Your task to perform on an android device: change alarm snooze length Image 0: 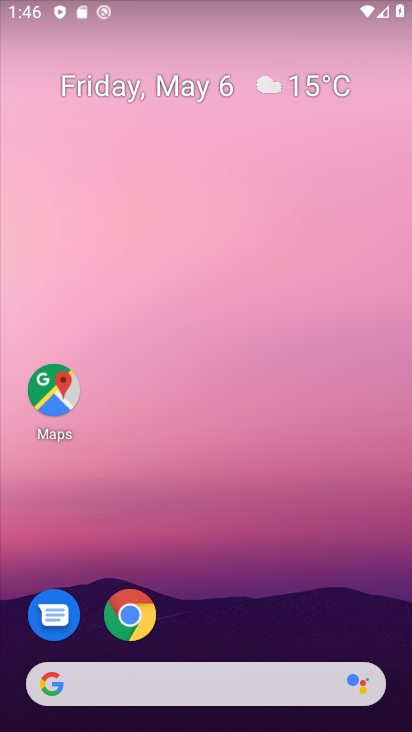
Step 0: drag from (249, 565) to (283, 207)
Your task to perform on an android device: change alarm snooze length Image 1: 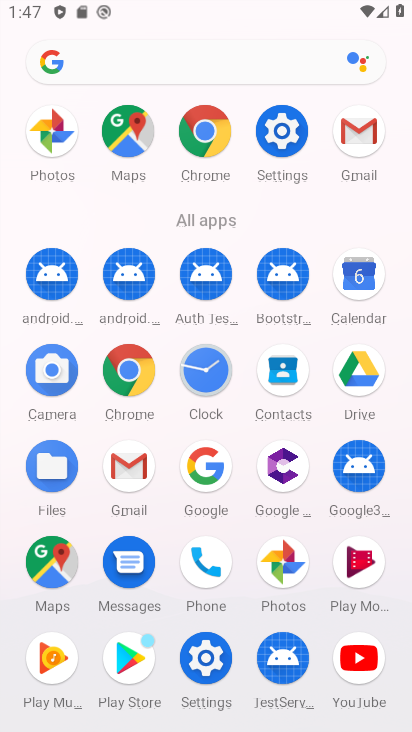
Step 1: click (216, 378)
Your task to perform on an android device: change alarm snooze length Image 2: 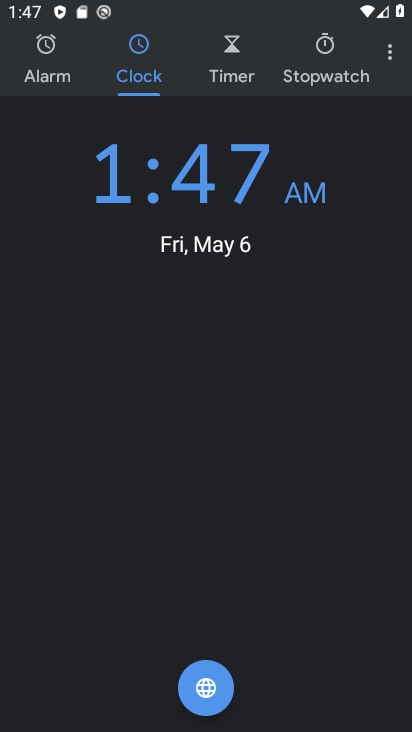
Step 2: click (391, 61)
Your task to perform on an android device: change alarm snooze length Image 3: 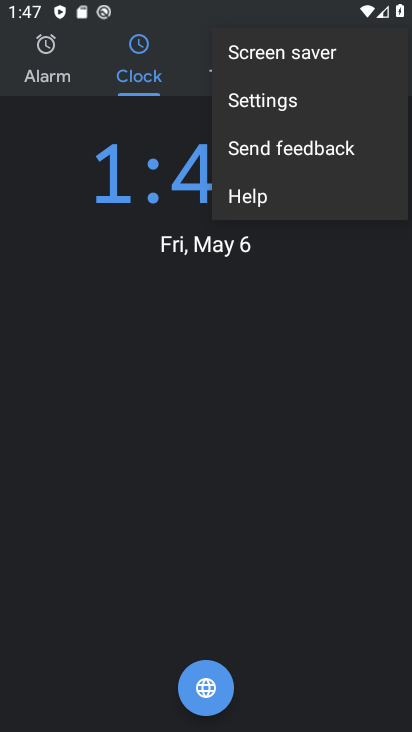
Step 3: click (283, 107)
Your task to perform on an android device: change alarm snooze length Image 4: 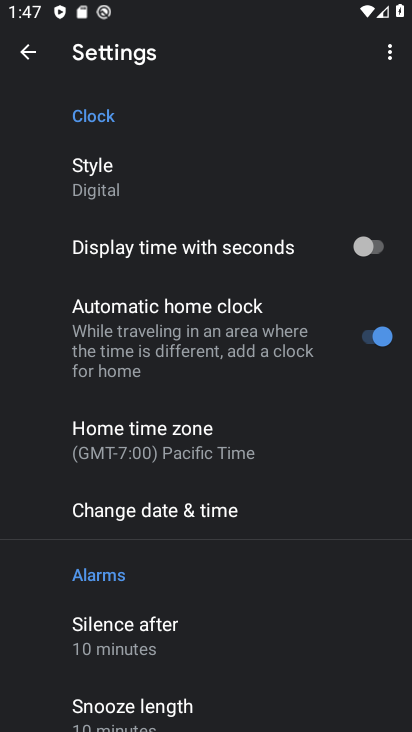
Step 4: drag from (251, 676) to (278, 446)
Your task to perform on an android device: change alarm snooze length Image 5: 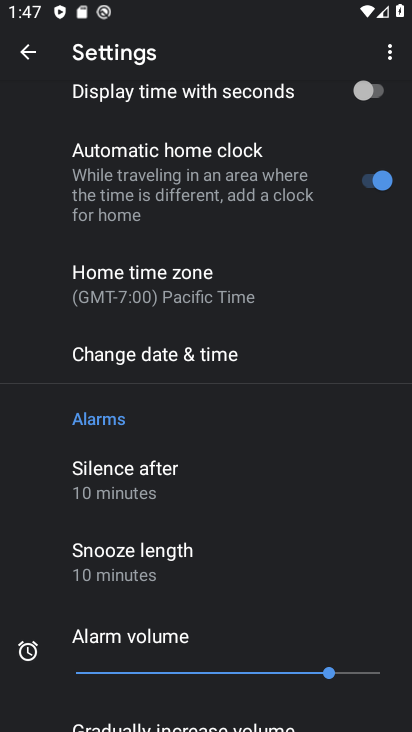
Step 5: click (191, 571)
Your task to perform on an android device: change alarm snooze length Image 6: 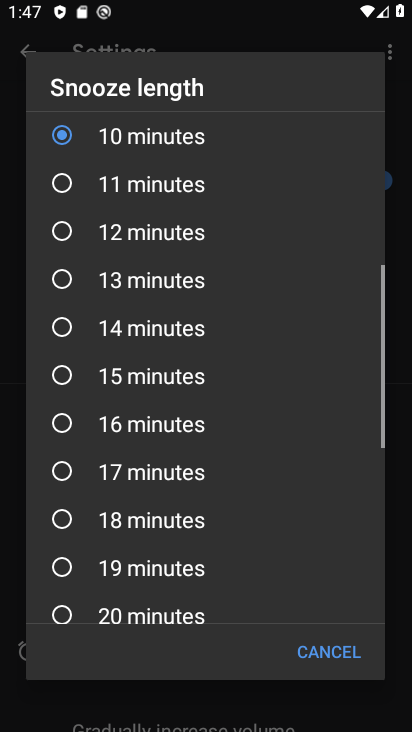
Step 6: click (233, 185)
Your task to perform on an android device: change alarm snooze length Image 7: 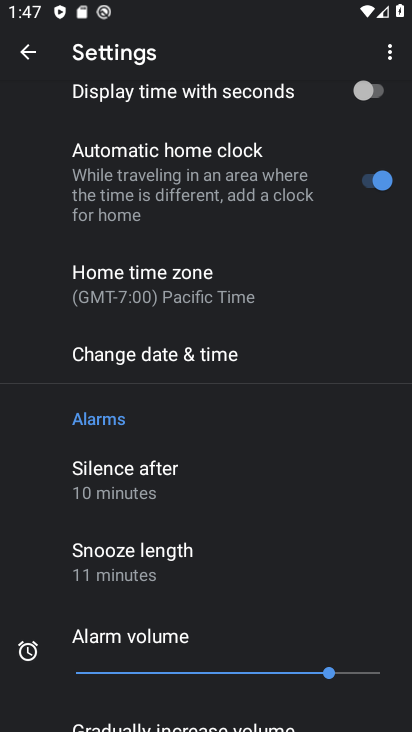
Step 7: task complete